Your task to perform on an android device: Search for pizza restaurants on Maps Image 0: 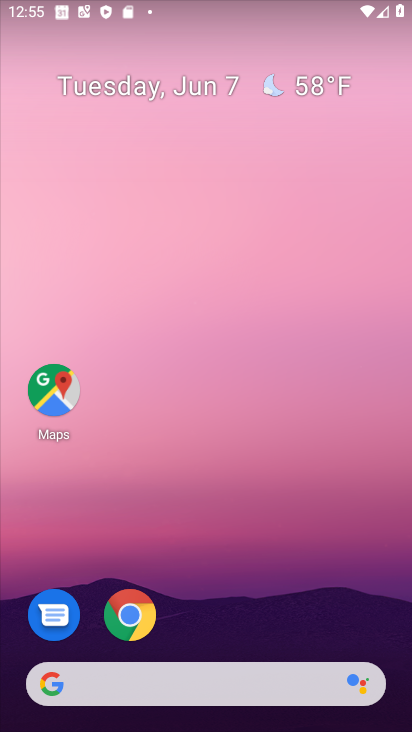
Step 0: click (55, 390)
Your task to perform on an android device: Search for pizza restaurants on Maps Image 1: 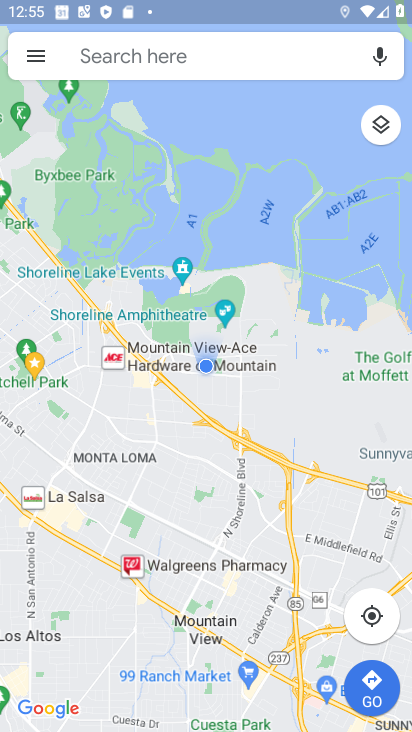
Step 1: click (151, 58)
Your task to perform on an android device: Search for pizza restaurants on Maps Image 2: 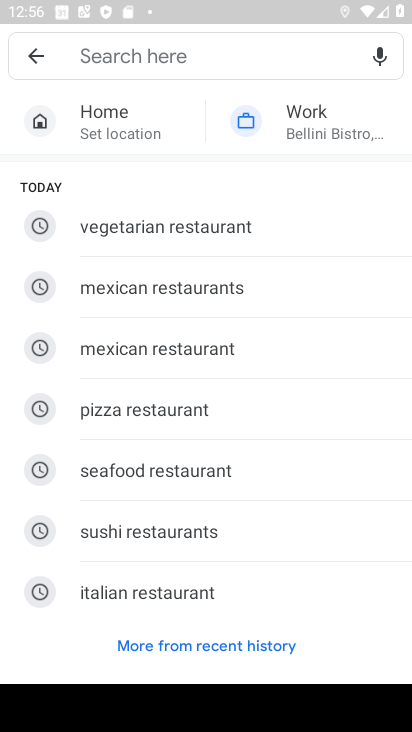
Step 2: type "pizza restaurants"
Your task to perform on an android device: Search for pizza restaurants on Maps Image 3: 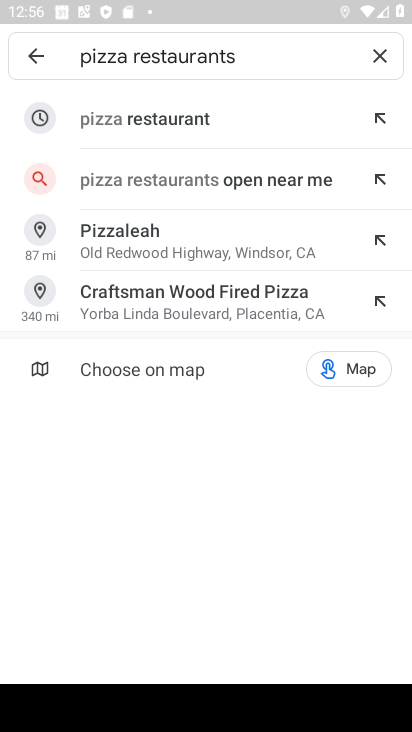
Step 3: click (182, 119)
Your task to perform on an android device: Search for pizza restaurants on Maps Image 4: 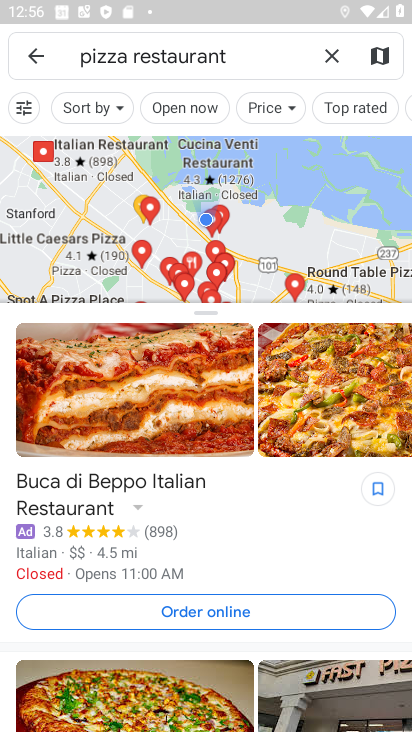
Step 4: task complete